Your task to perform on an android device: When is my next meeting? Image 0: 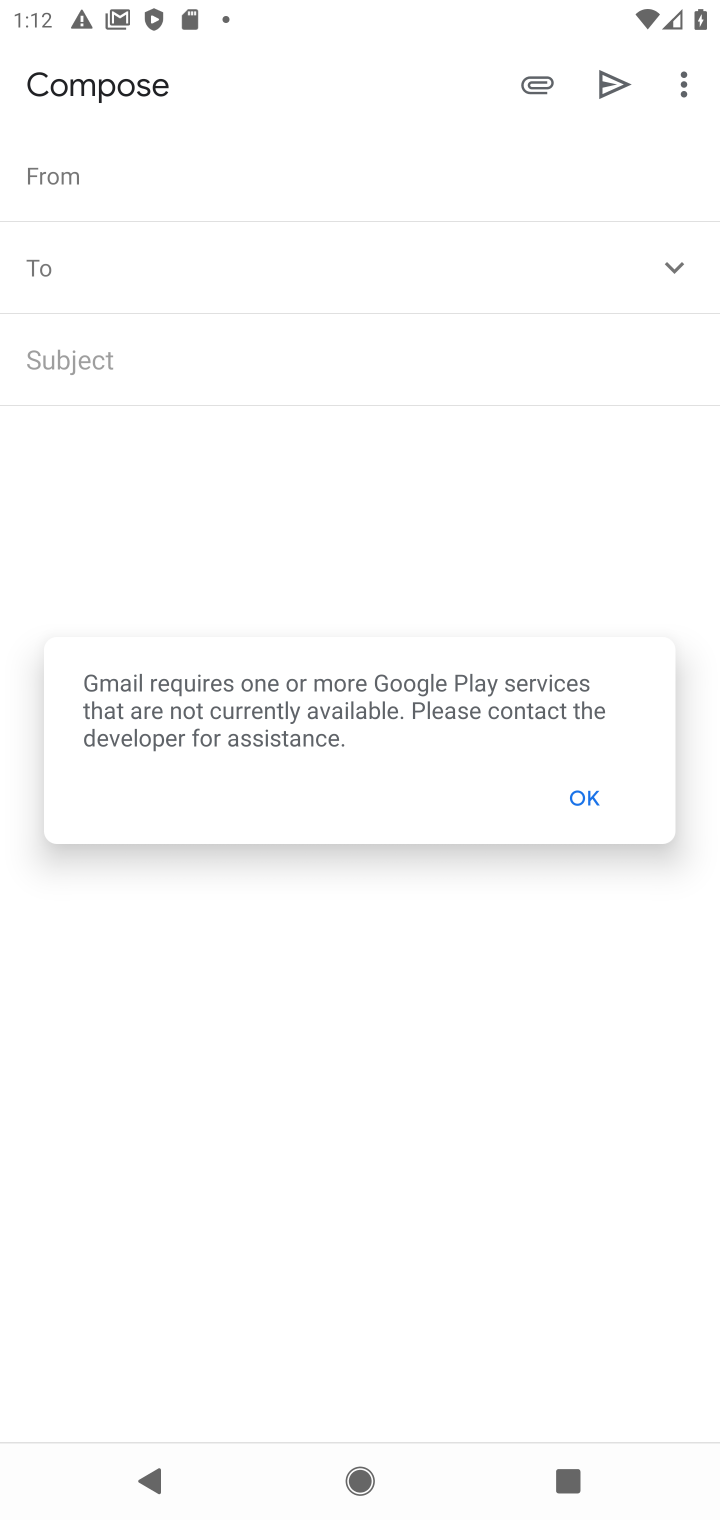
Step 0: press home button
Your task to perform on an android device: When is my next meeting? Image 1: 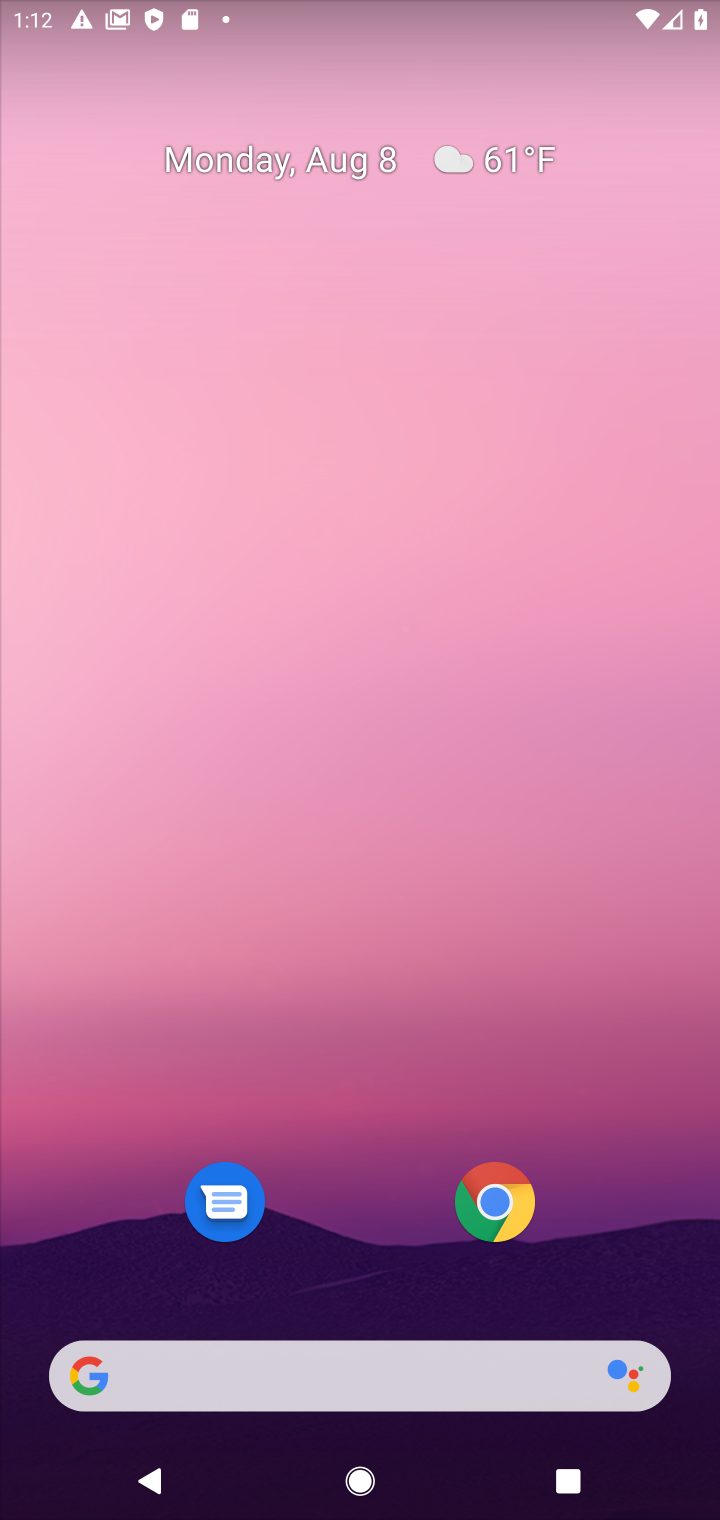
Step 1: press home button
Your task to perform on an android device: When is my next meeting? Image 2: 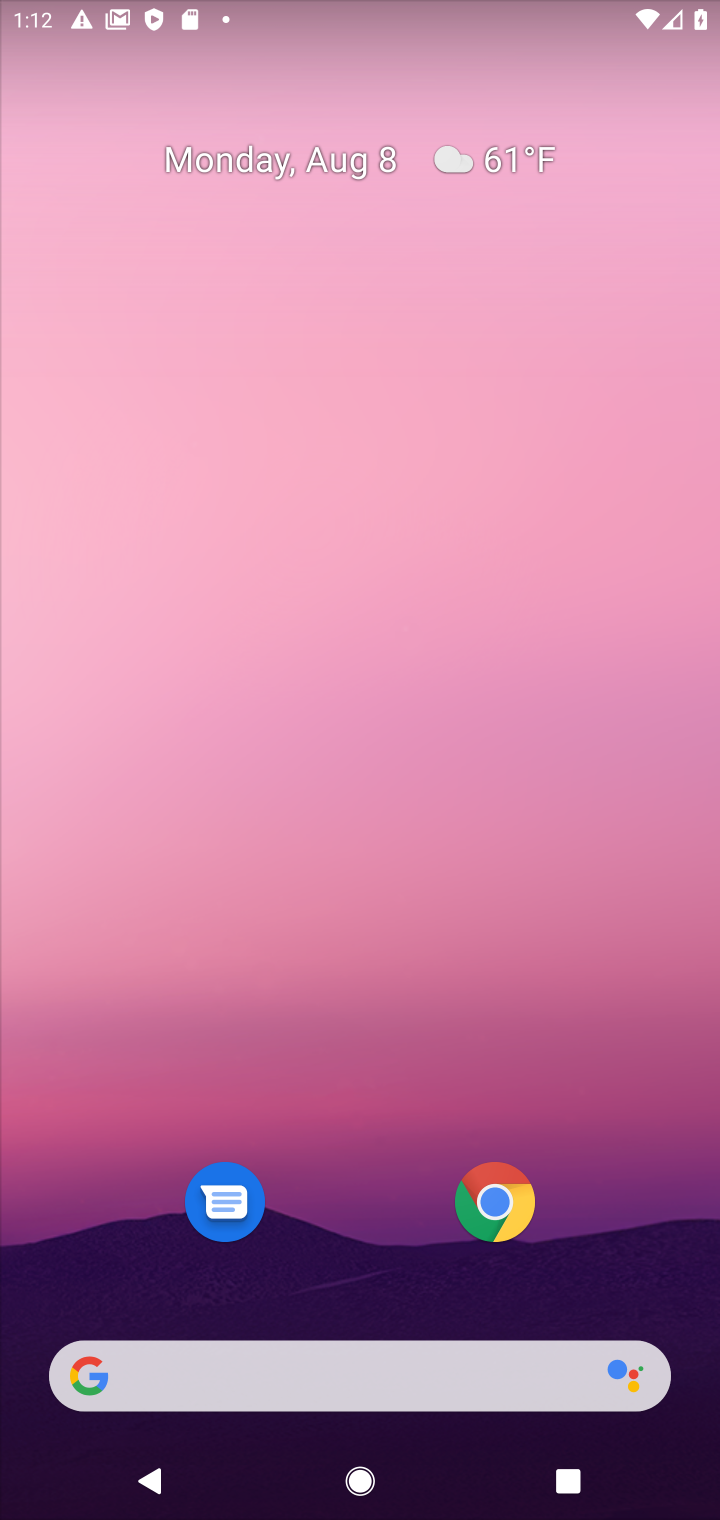
Step 2: drag from (591, 371) to (594, 266)
Your task to perform on an android device: When is my next meeting? Image 3: 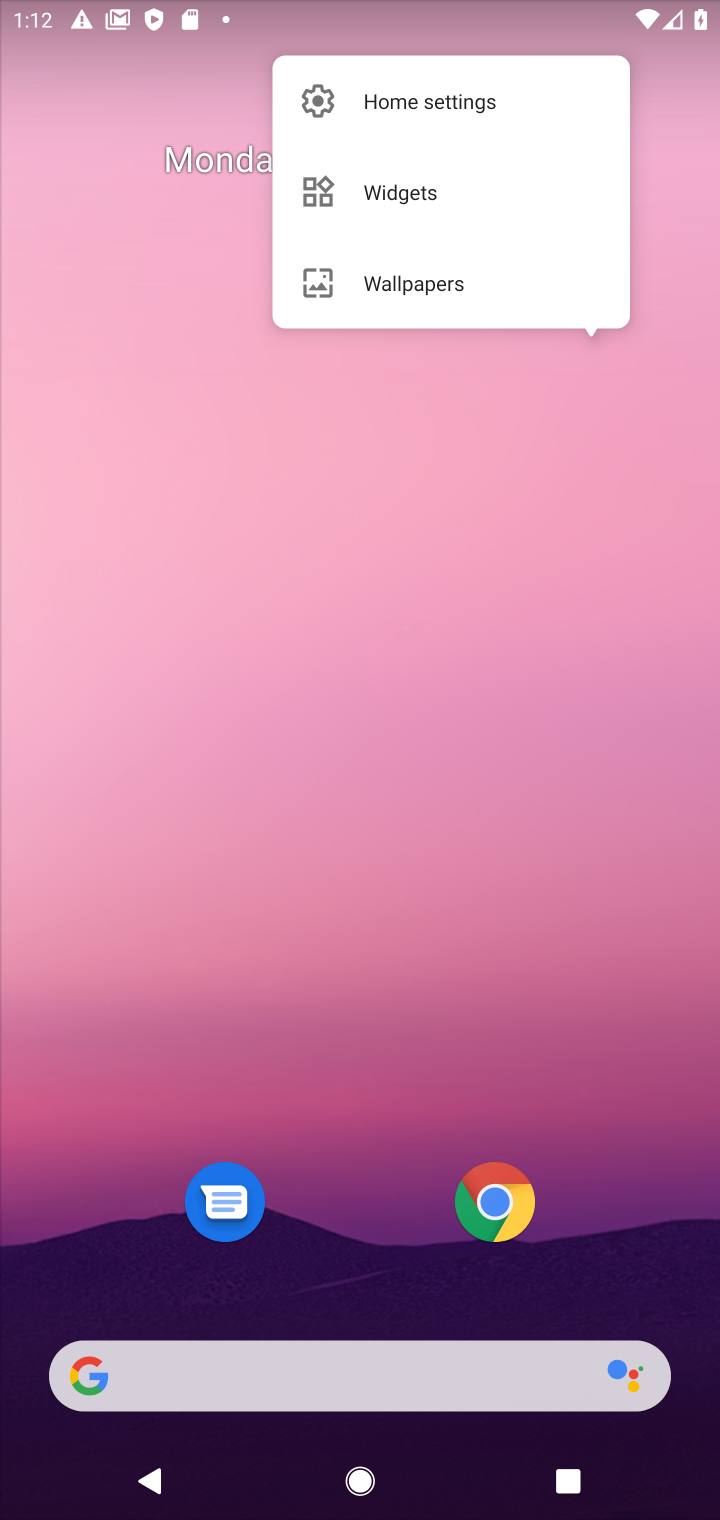
Step 3: click (578, 648)
Your task to perform on an android device: When is my next meeting? Image 4: 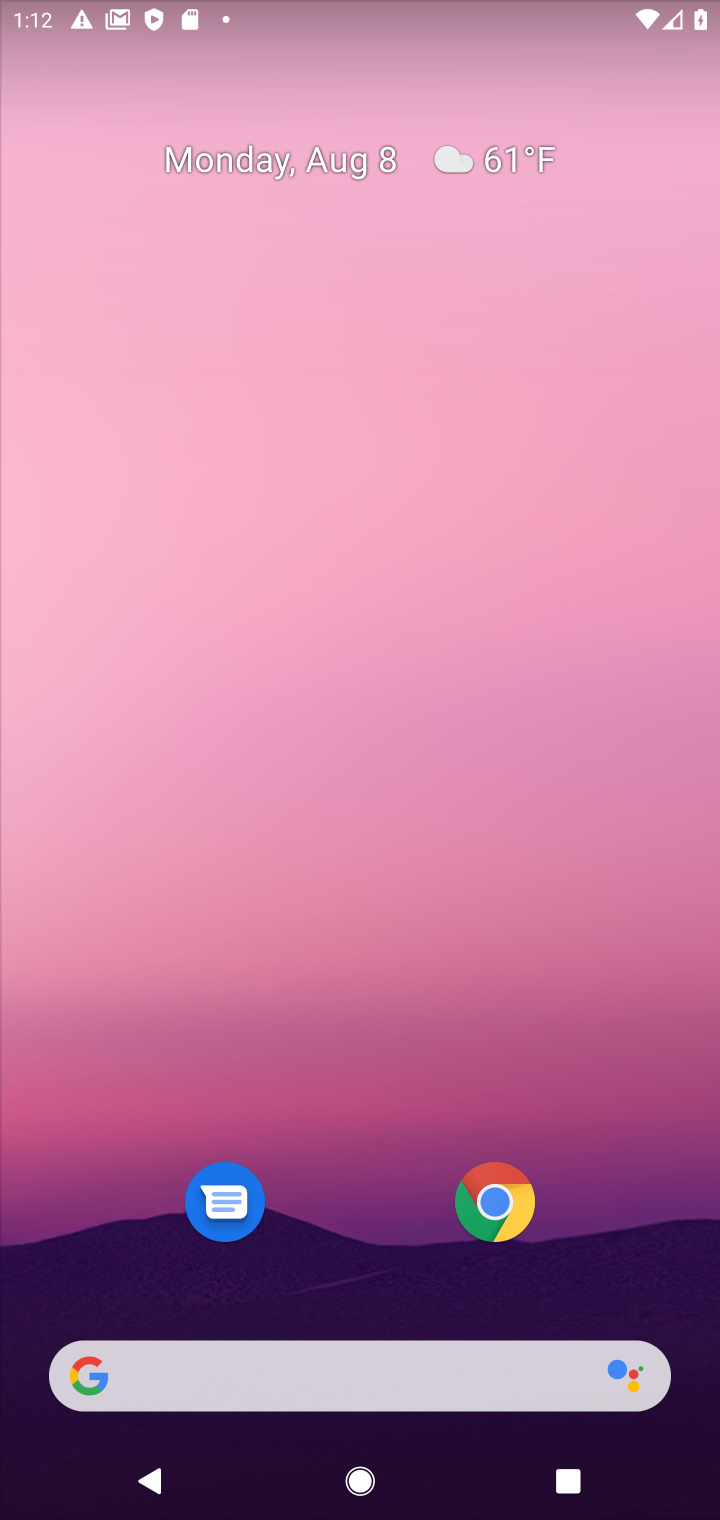
Step 4: drag from (617, 1089) to (621, 237)
Your task to perform on an android device: When is my next meeting? Image 5: 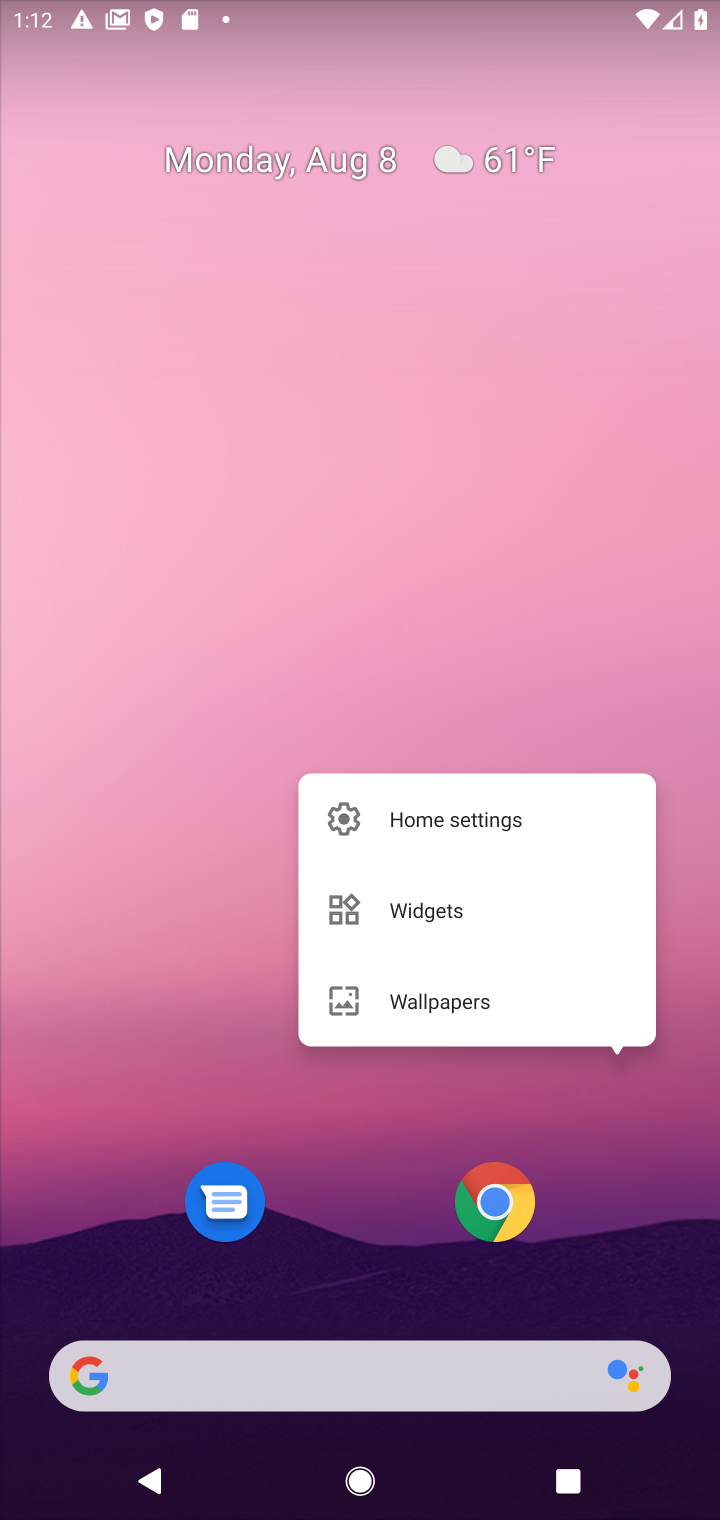
Step 5: click (183, 910)
Your task to perform on an android device: When is my next meeting? Image 6: 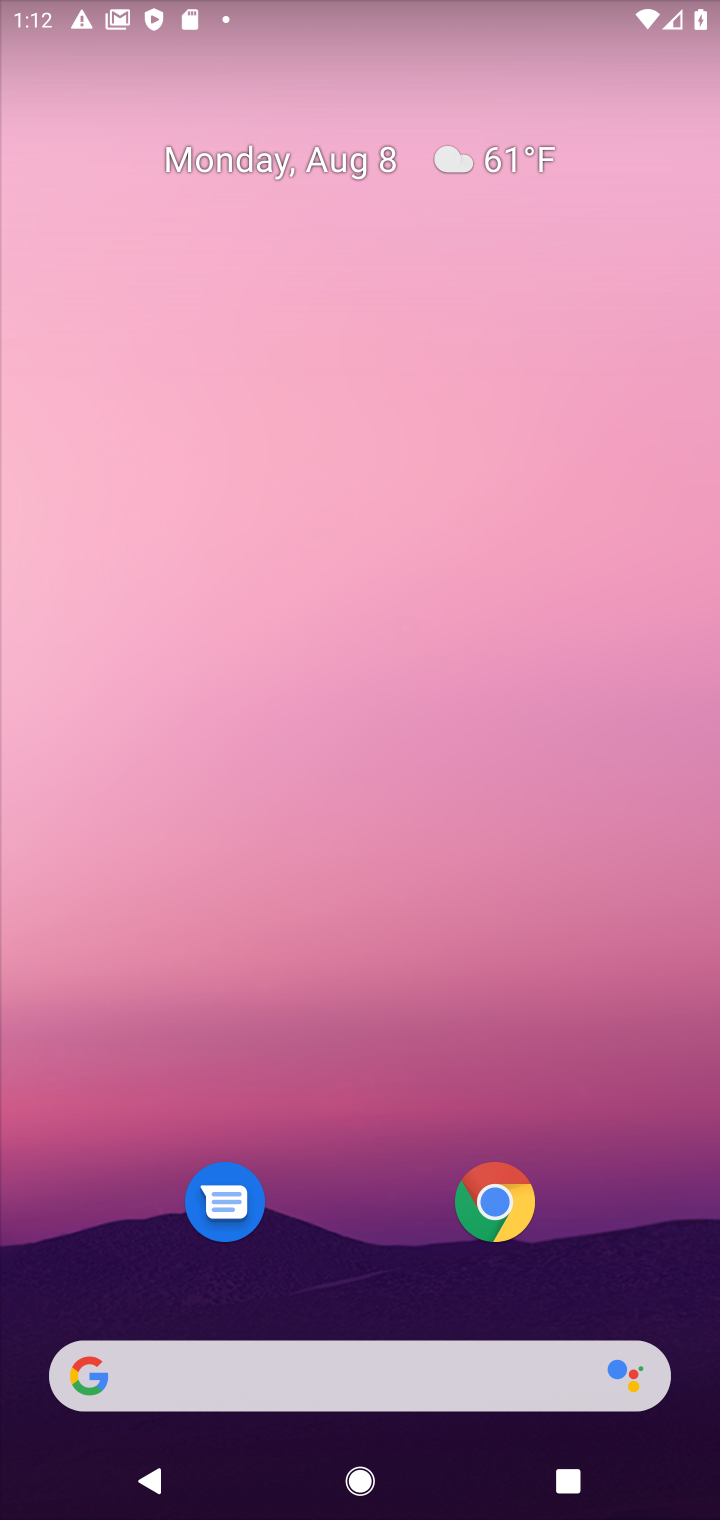
Step 6: drag from (358, 1056) to (401, 117)
Your task to perform on an android device: When is my next meeting? Image 7: 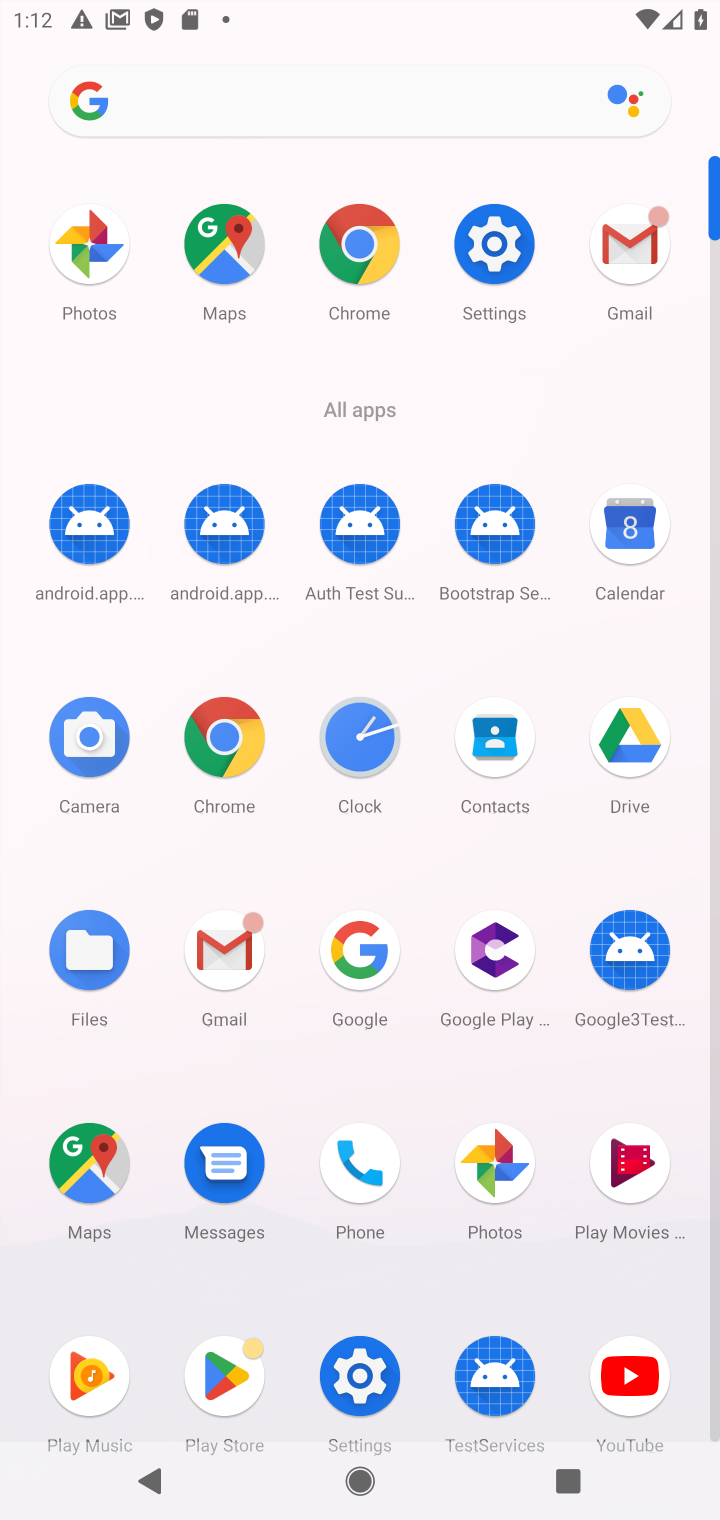
Step 7: click (606, 547)
Your task to perform on an android device: When is my next meeting? Image 8: 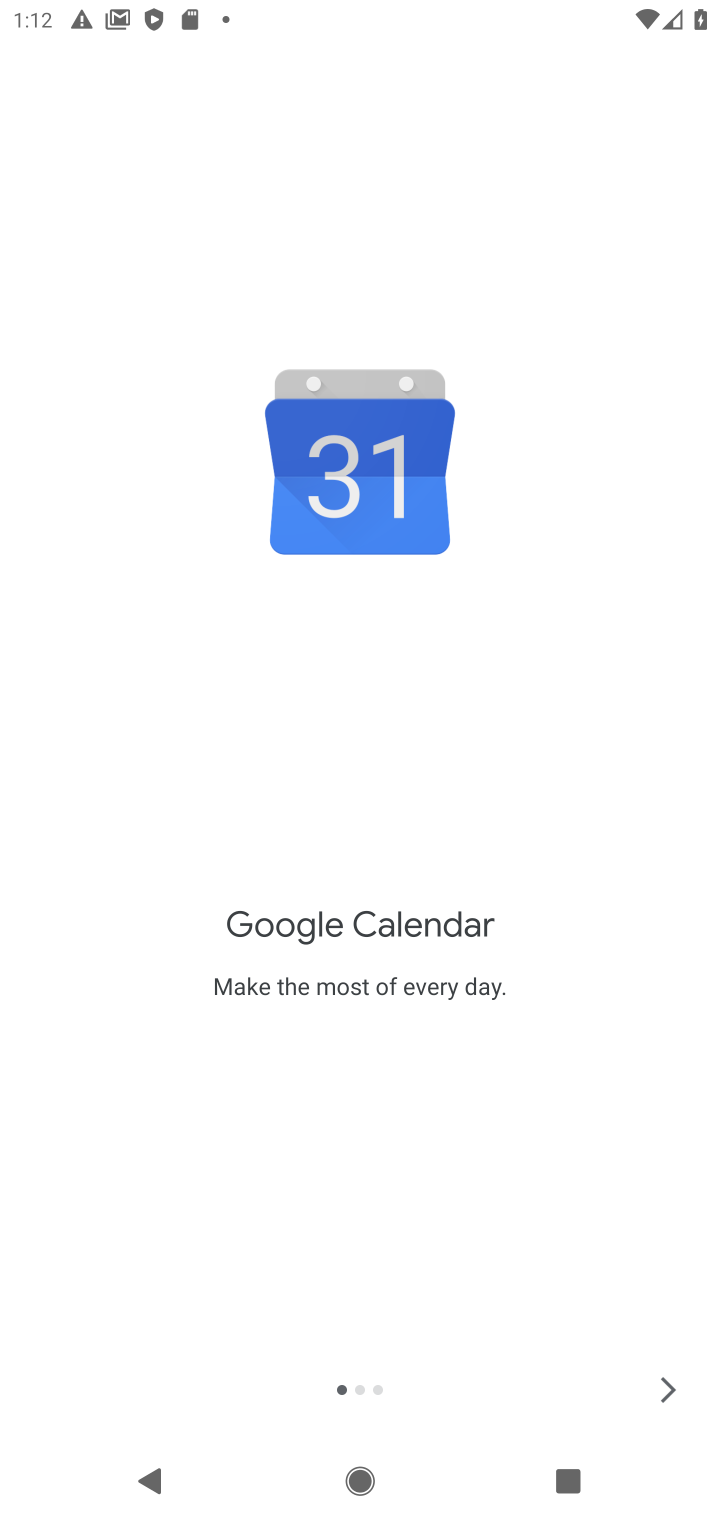
Step 8: click (671, 1386)
Your task to perform on an android device: When is my next meeting? Image 9: 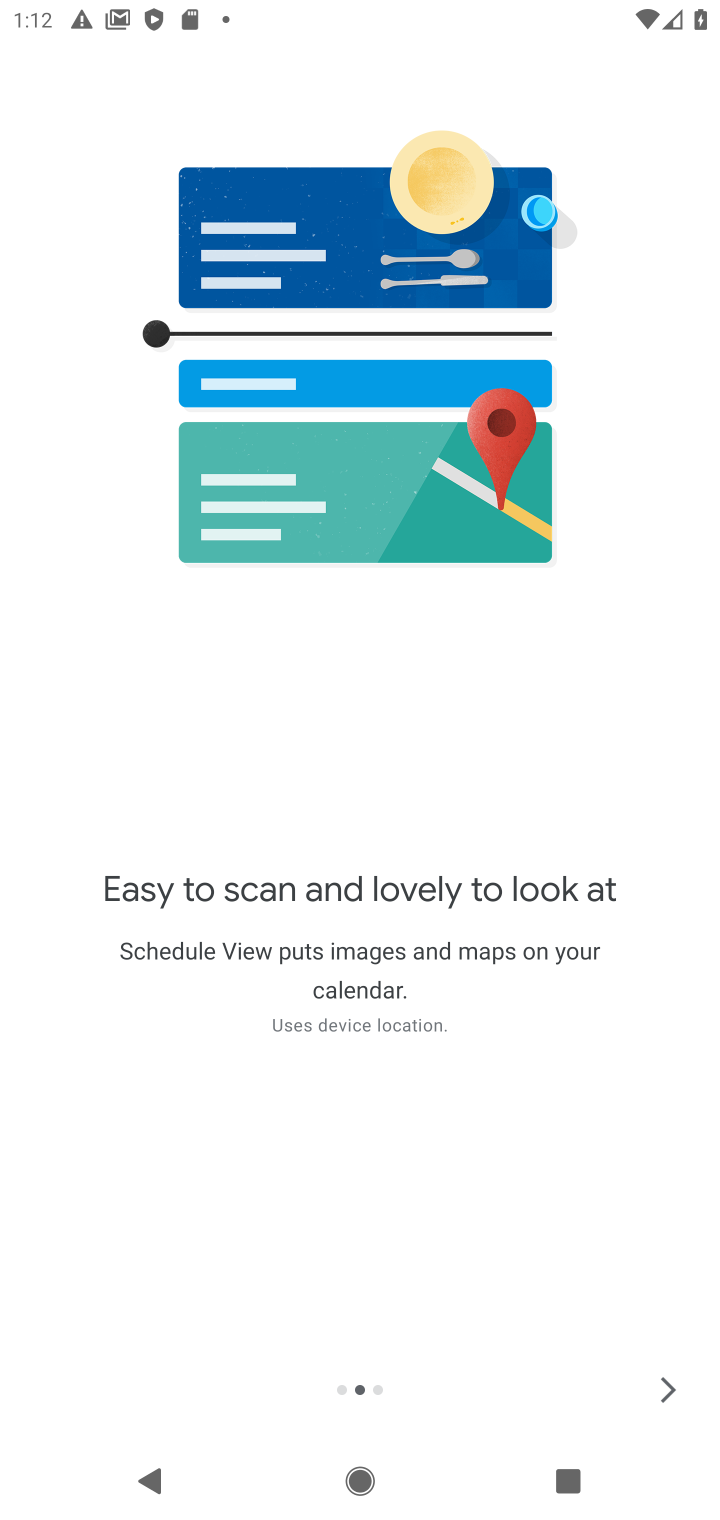
Step 9: click (671, 1386)
Your task to perform on an android device: When is my next meeting? Image 10: 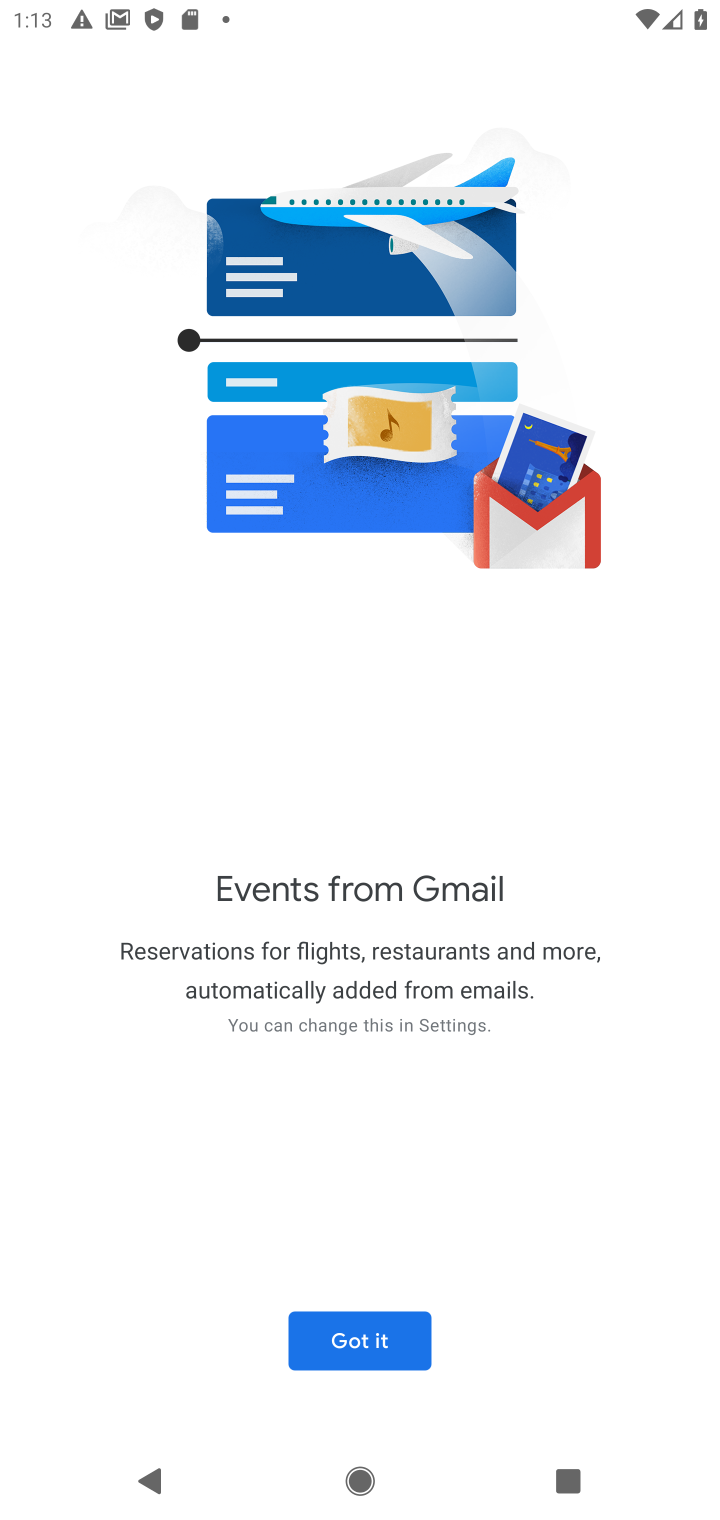
Step 10: click (366, 1336)
Your task to perform on an android device: When is my next meeting? Image 11: 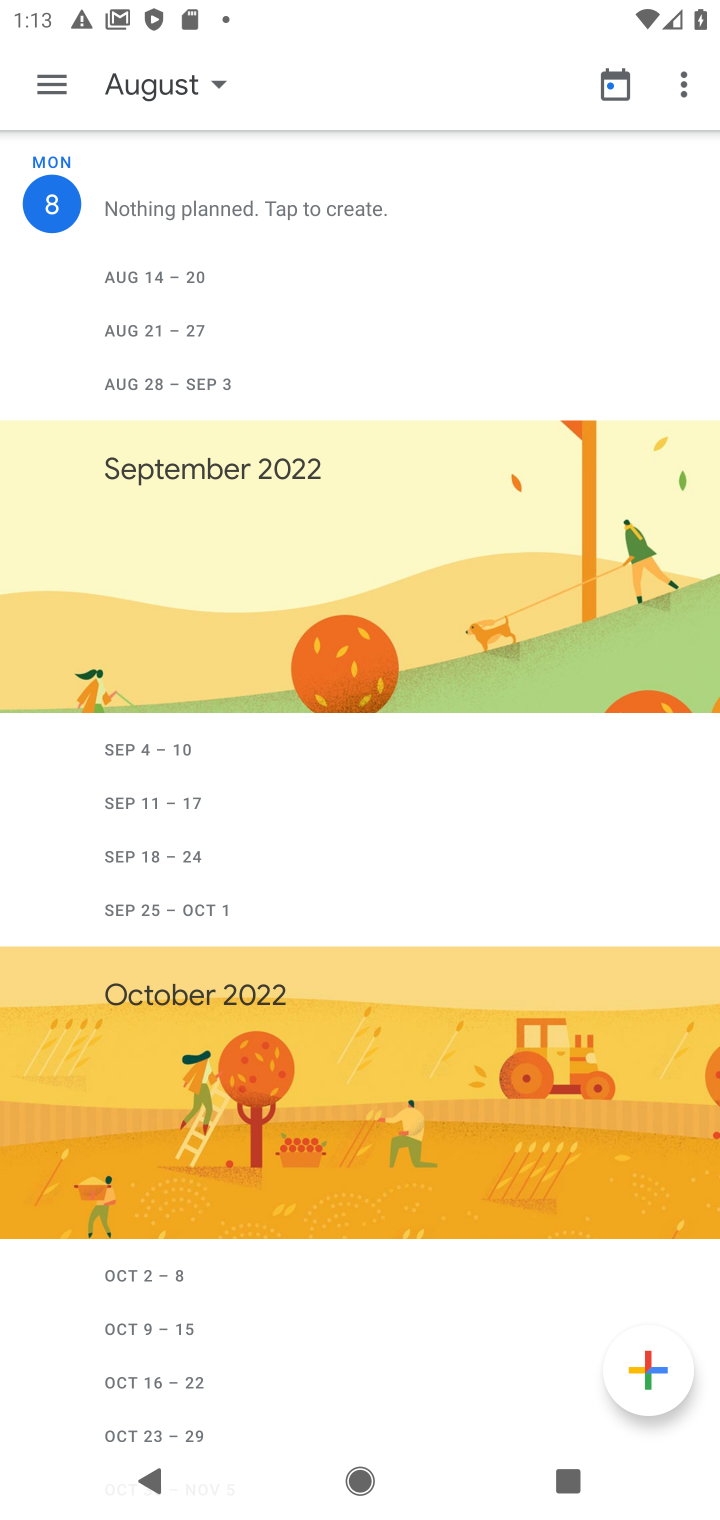
Step 11: task complete